Your task to perform on an android device: turn on bluetooth scan Image 0: 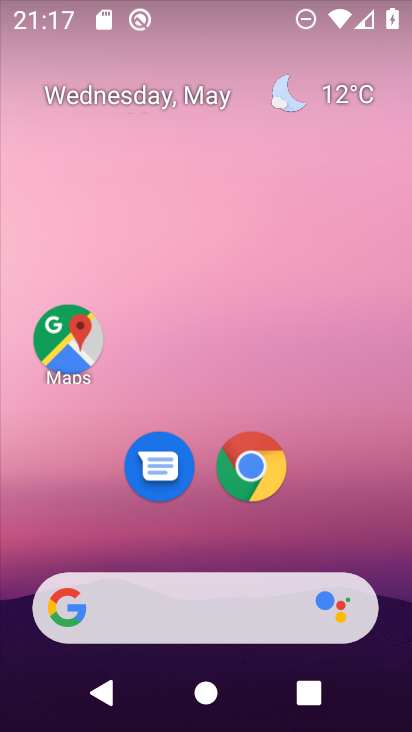
Step 0: drag from (212, 532) to (177, 78)
Your task to perform on an android device: turn on bluetooth scan Image 1: 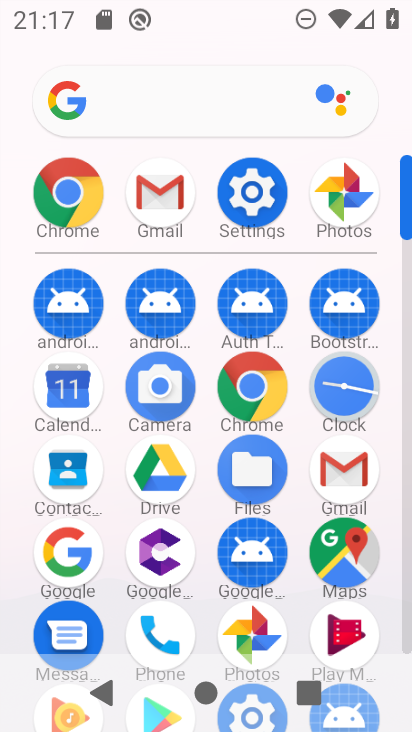
Step 1: click (249, 181)
Your task to perform on an android device: turn on bluetooth scan Image 2: 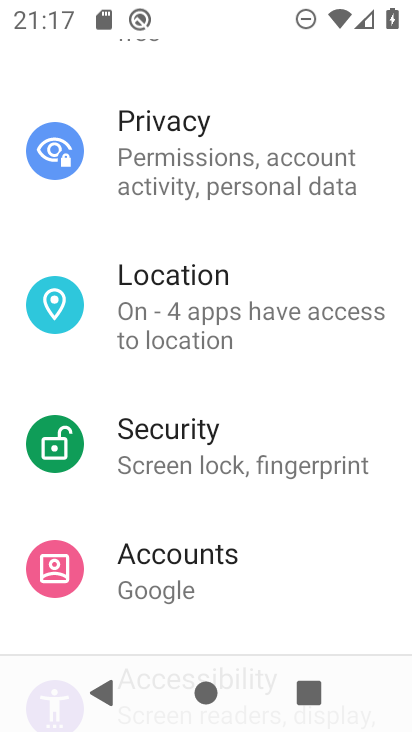
Step 2: click (186, 288)
Your task to perform on an android device: turn on bluetooth scan Image 3: 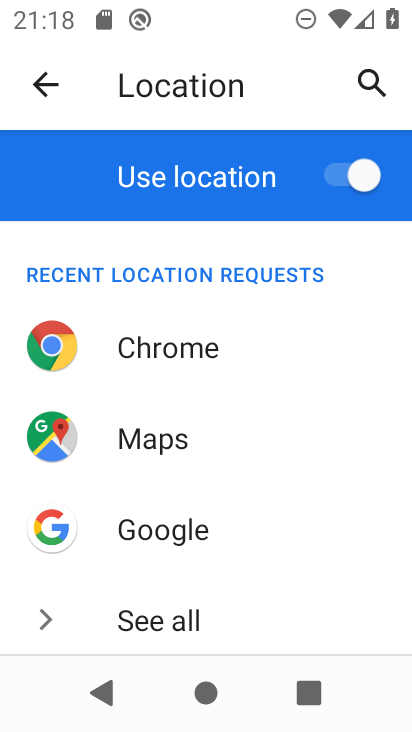
Step 3: drag from (231, 610) to (242, 294)
Your task to perform on an android device: turn on bluetooth scan Image 4: 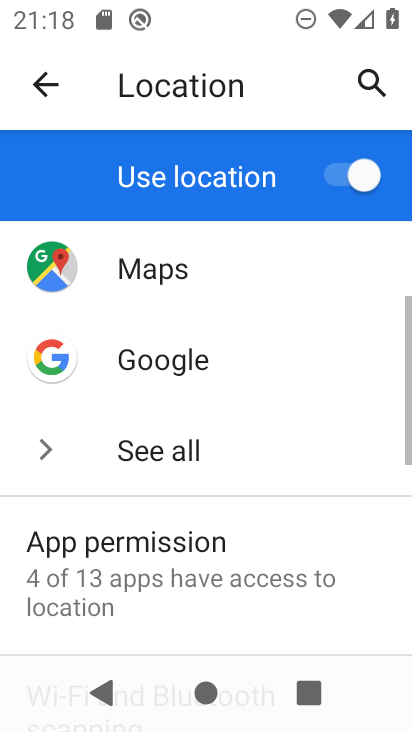
Step 4: click (249, 220)
Your task to perform on an android device: turn on bluetooth scan Image 5: 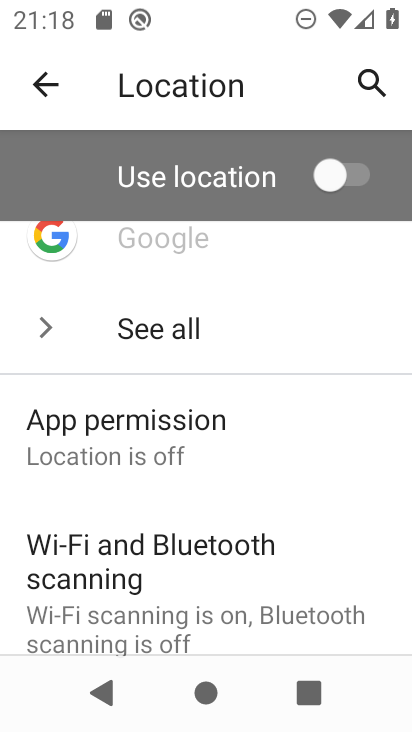
Step 5: click (333, 176)
Your task to perform on an android device: turn on bluetooth scan Image 6: 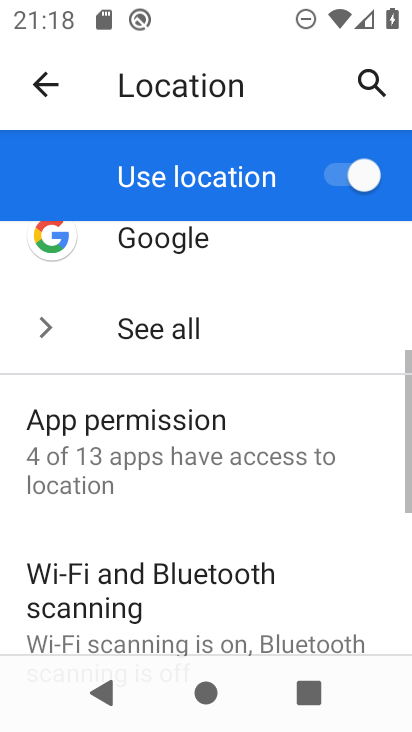
Step 6: click (186, 612)
Your task to perform on an android device: turn on bluetooth scan Image 7: 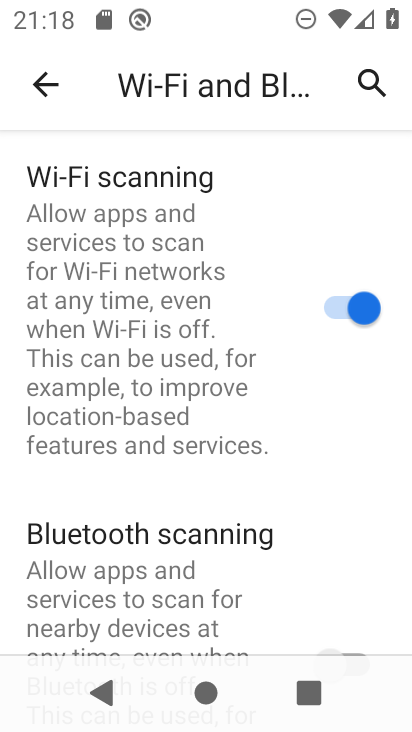
Step 7: drag from (284, 568) to (279, 229)
Your task to perform on an android device: turn on bluetooth scan Image 8: 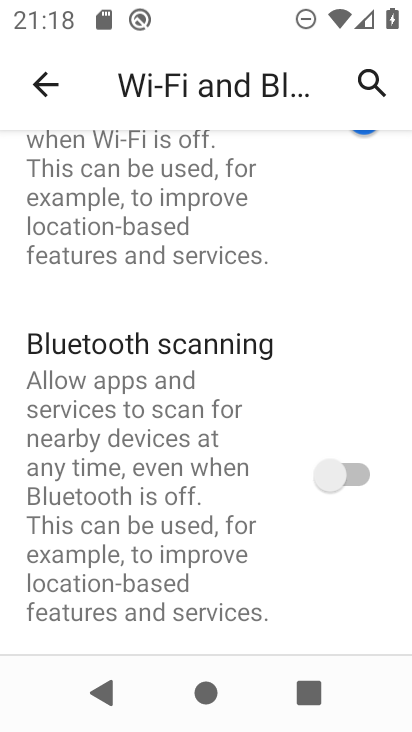
Step 8: click (337, 462)
Your task to perform on an android device: turn on bluetooth scan Image 9: 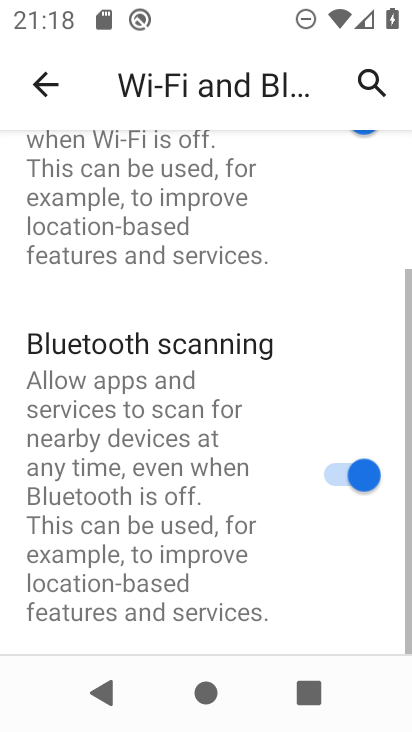
Step 9: task complete